Your task to perform on an android device: uninstall "DoorDash - Food Delivery" Image 0: 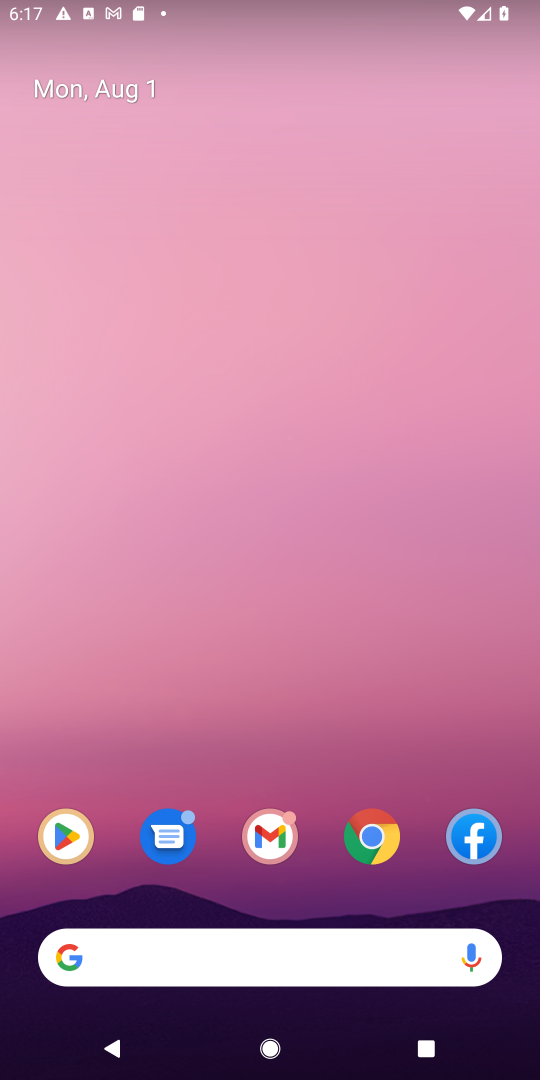
Step 0: press home button
Your task to perform on an android device: uninstall "DoorDash - Food Delivery" Image 1: 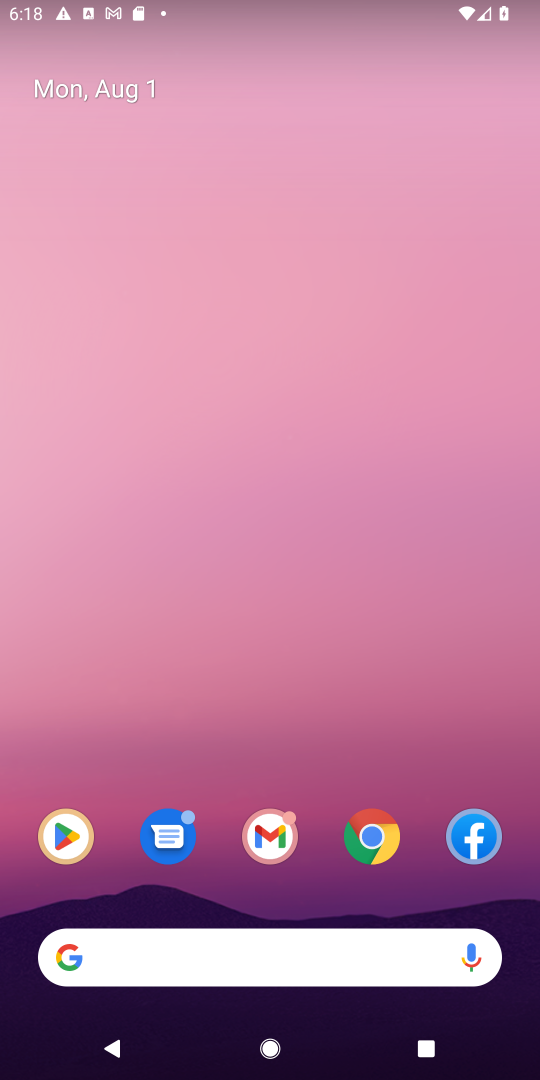
Step 1: click (62, 843)
Your task to perform on an android device: uninstall "DoorDash - Food Delivery" Image 2: 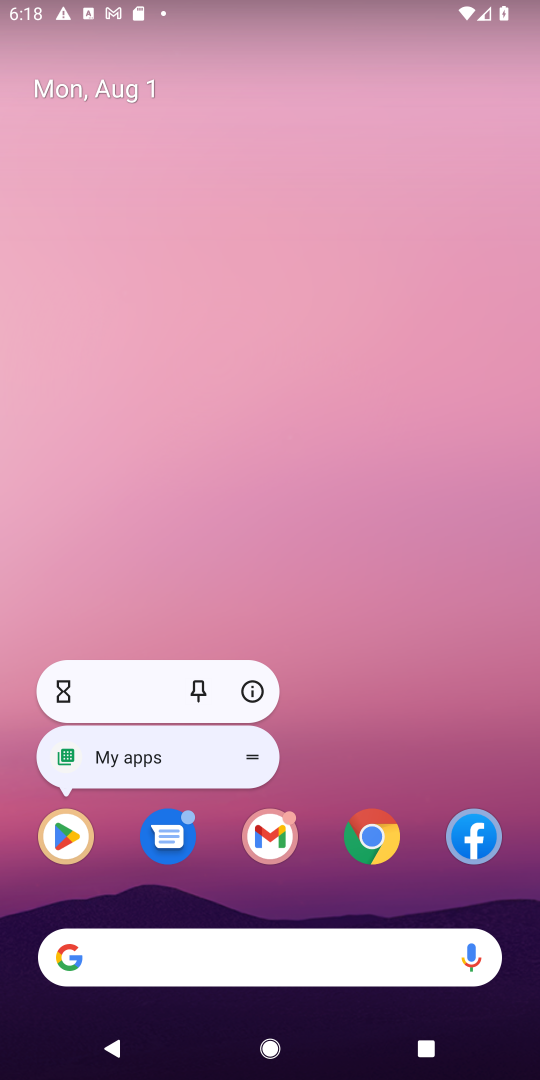
Step 2: click (63, 841)
Your task to perform on an android device: uninstall "DoorDash - Food Delivery" Image 3: 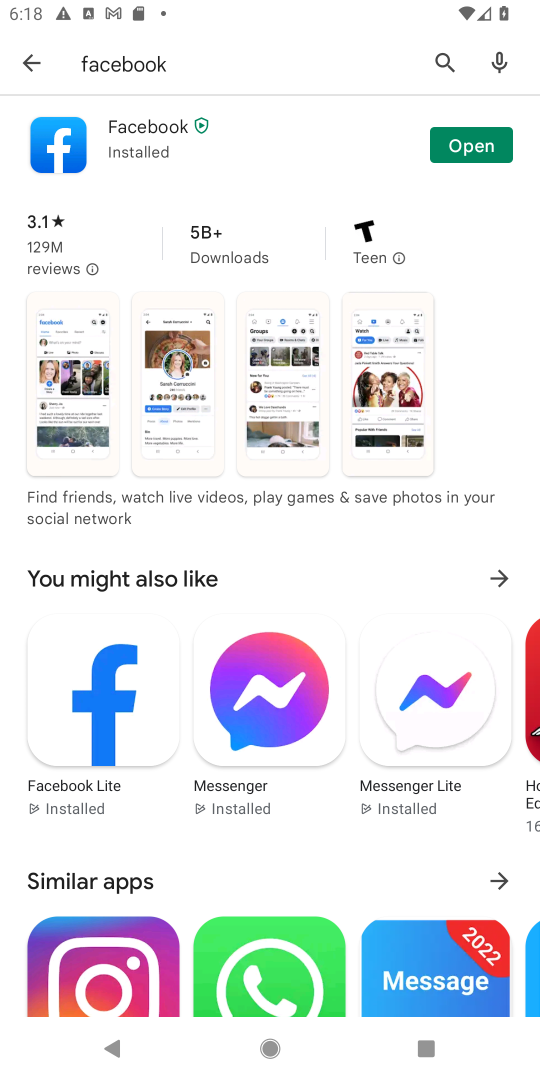
Step 3: click (435, 53)
Your task to perform on an android device: uninstall "DoorDash - Food Delivery" Image 4: 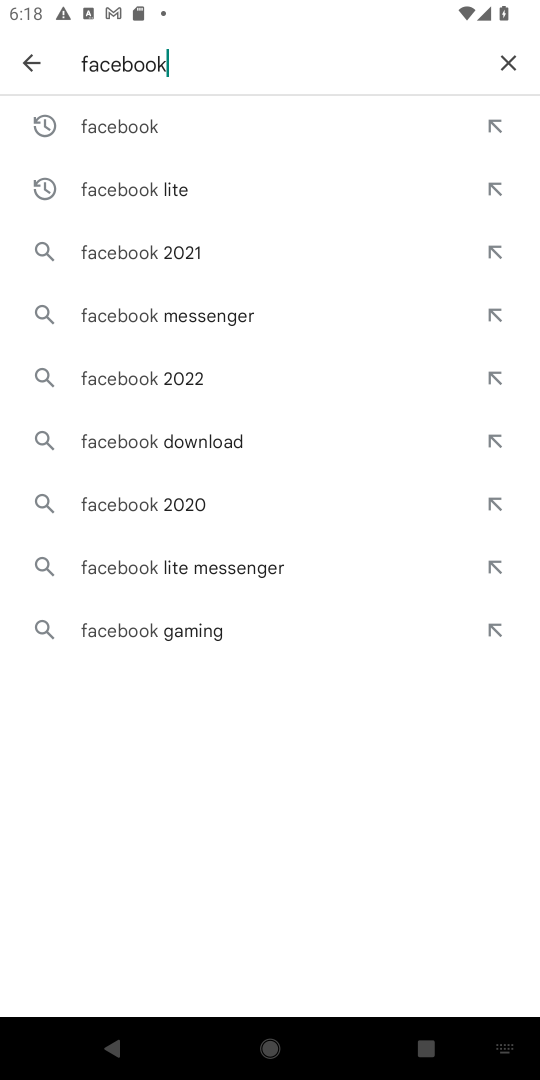
Step 4: click (508, 56)
Your task to perform on an android device: uninstall "DoorDash - Food Delivery" Image 5: 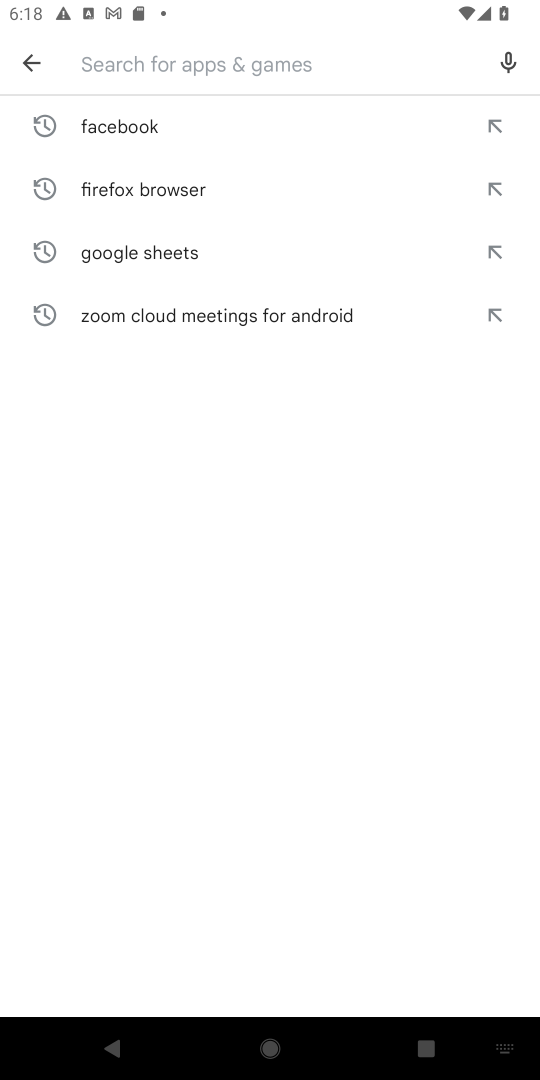
Step 5: type "DoorDash - Food Delivery"
Your task to perform on an android device: uninstall "DoorDash - Food Delivery" Image 6: 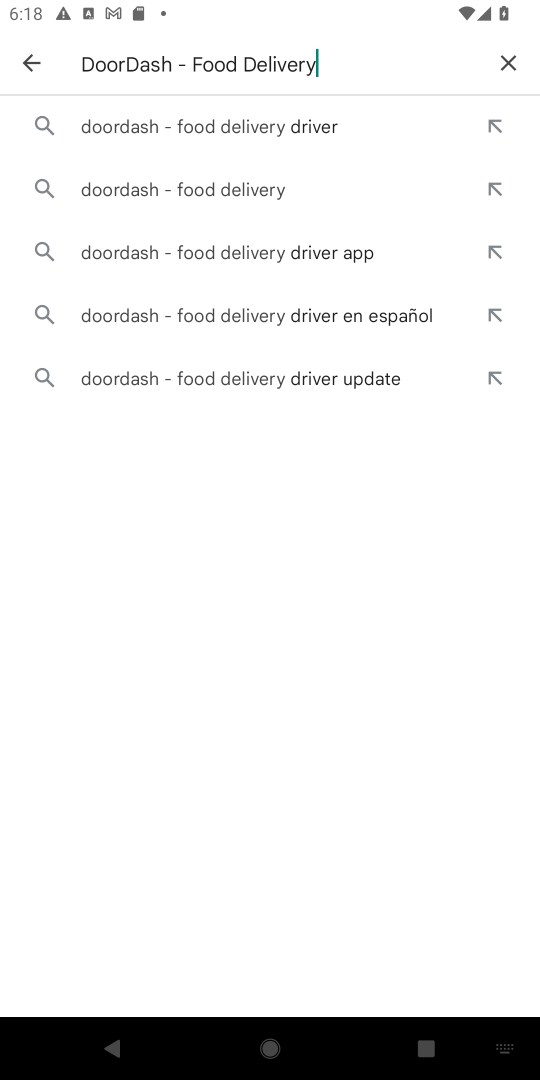
Step 6: click (229, 124)
Your task to perform on an android device: uninstall "DoorDash - Food Delivery" Image 7: 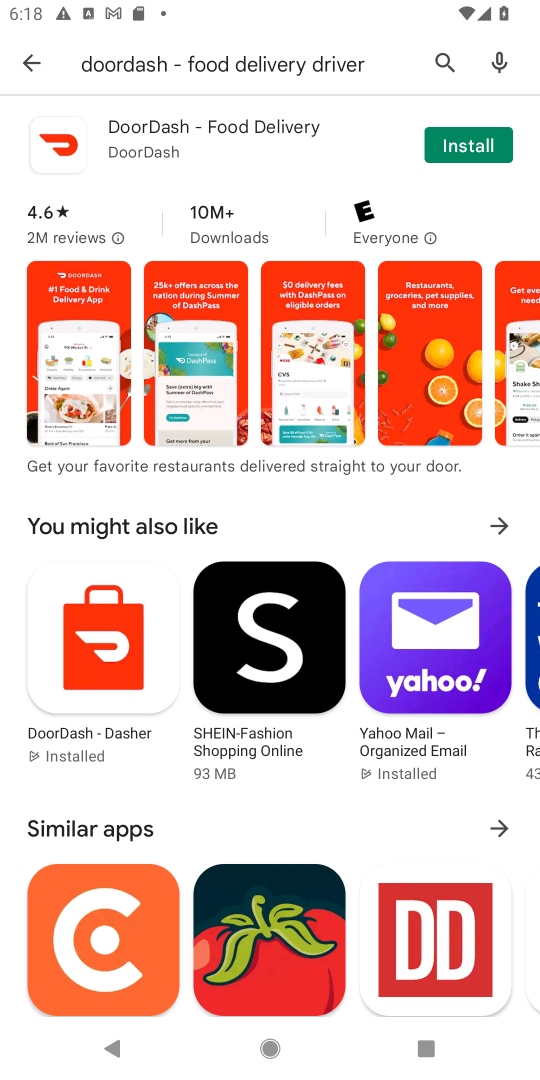
Step 7: task complete